Your task to perform on an android device: toggle priority inbox in the gmail app Image 0: 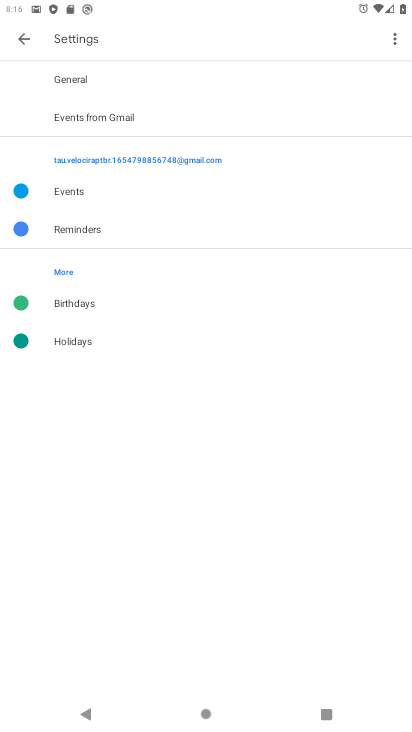
Step 0: press home button
Your task to perform on an android device: toggle priority inbox in the gmail app Image 1: 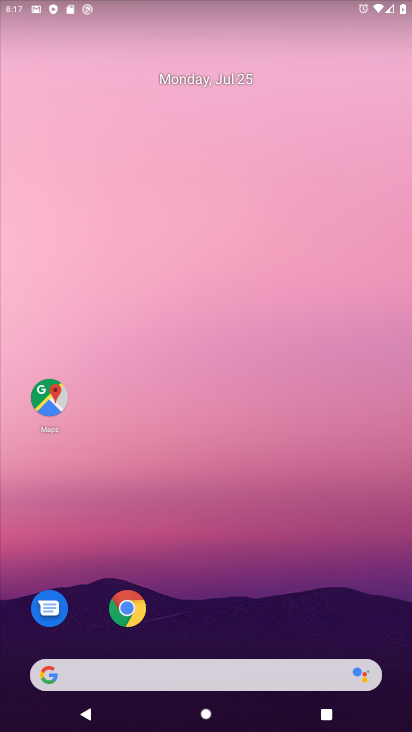
Step 1: drag from (266, 707) to (252, 109)
Your task to perform on an android device: toggle priority inbox in the gmail app Image 2: 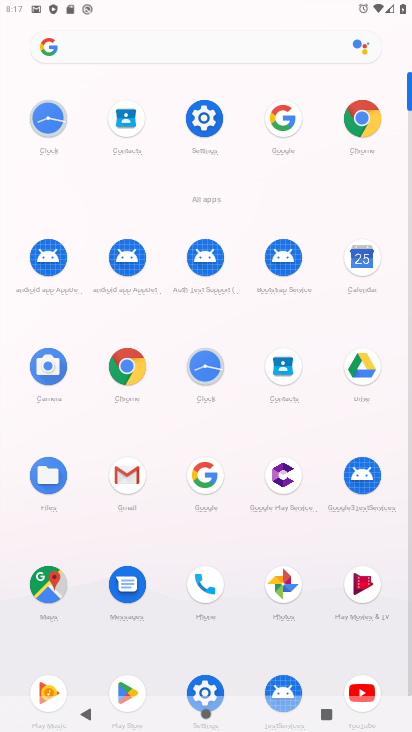
Step 2: click (139, 471)
Your task to perform on an android device: toggle priority inbox in the gmail app Image 3: 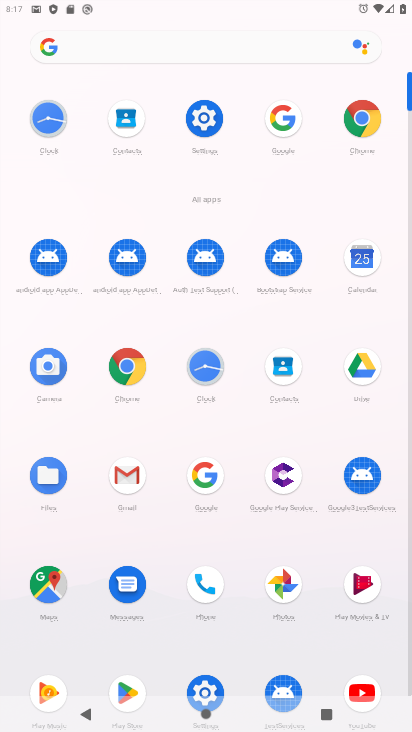
Step 3: click (139, 471)
Your task to perform on an android device: toggle priority inbox in the gmail app Image 4: 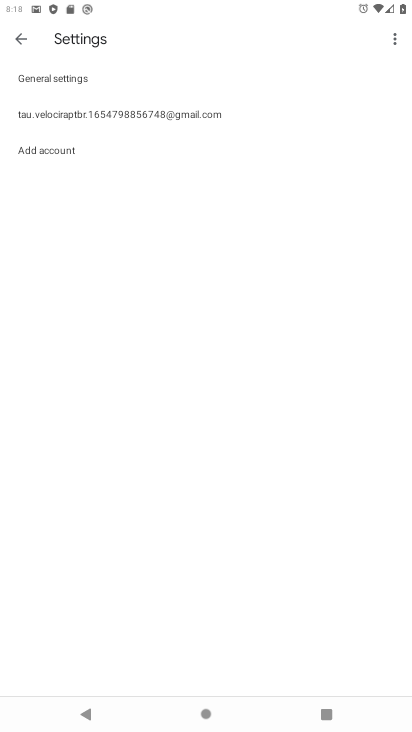
Step 4: click (84, 113)
Your task to perform on an android device: toggle priority inbox in the gmail app Image 5: 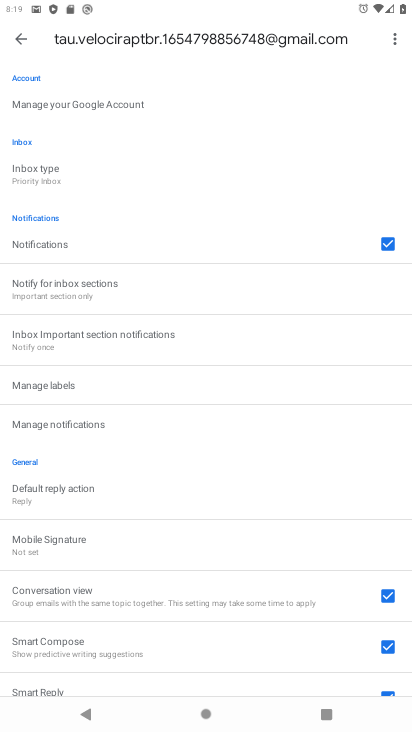
Step 5: task complete